Your task to perform on an android device: Open maps Image 0: 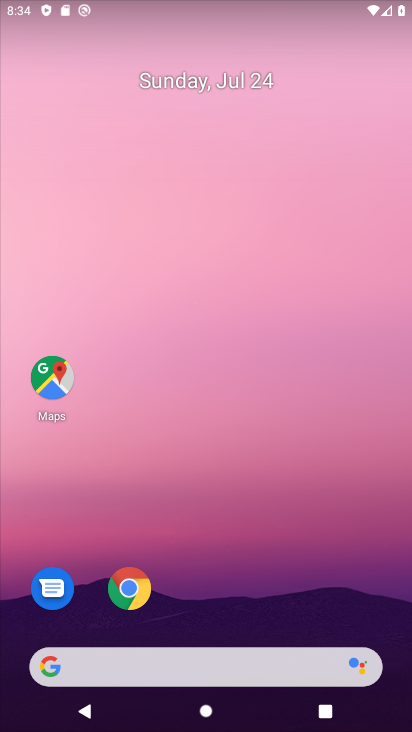
Step 0: click (43, 391)
Your task to perform on an android device: Open maps Image 1: 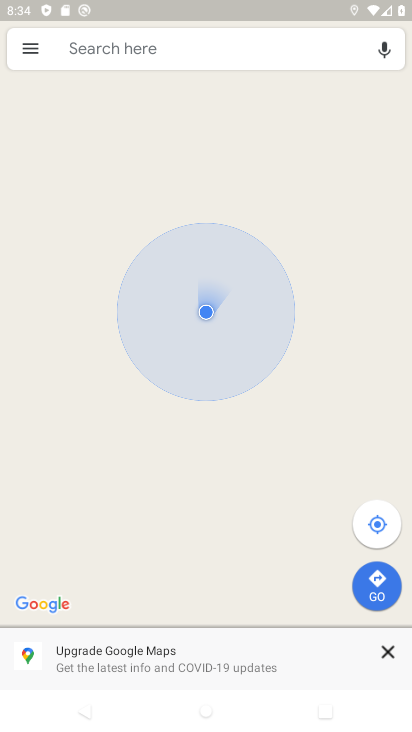
Step 1: task complete